Your task to perform on an android device: turn off data saver in the chrome app Image 0: 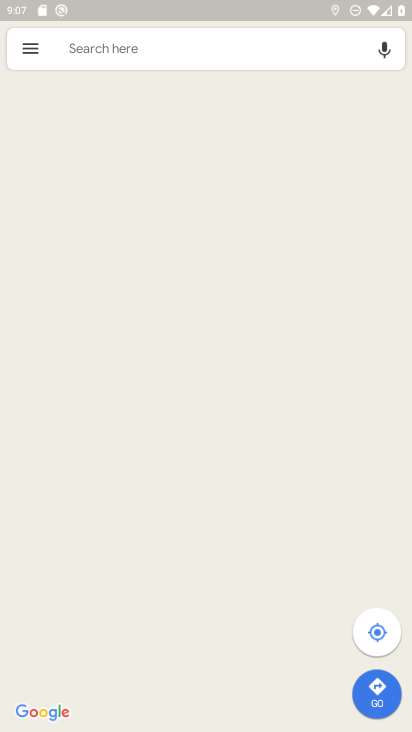
Step 0: press home button
Your task to perform on an android device: turn off data saver in the chrome app Image 1: 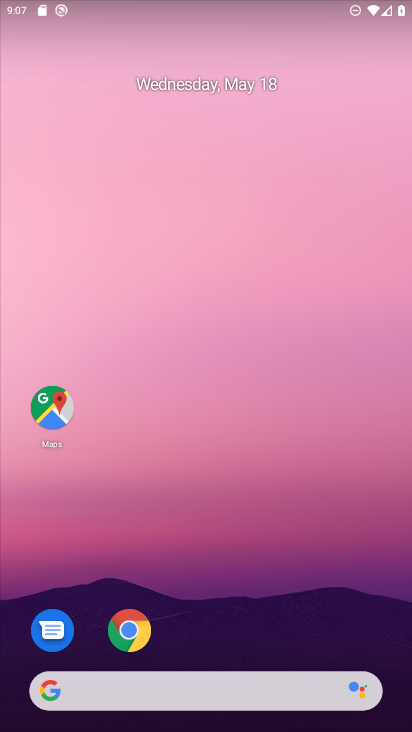
Step 1: drag from (226, 659) to (193, 113)
Your task to perform on an android device: turn off data saver in the chrome app Image 2: 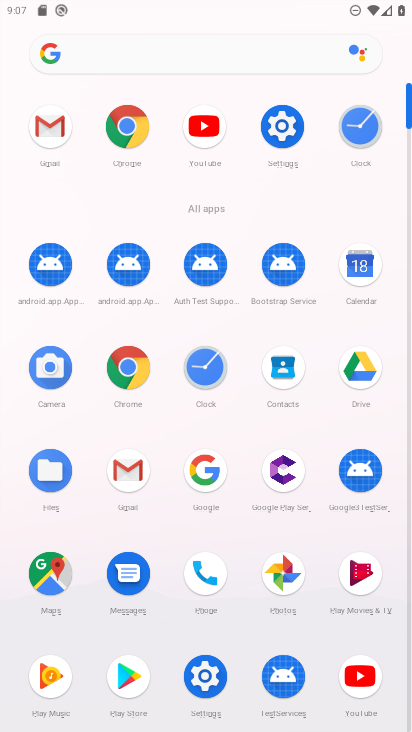
Step 2: click (101, 128)
Your task to perform on an android device: turn off data saver in the chrome app Image 3: 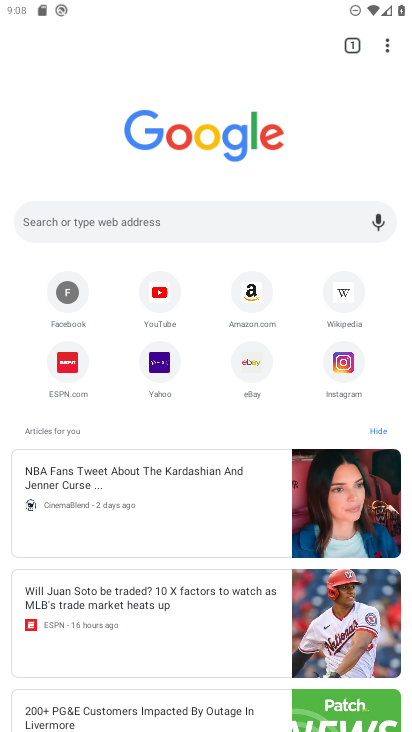
Step 3: click (386, 56)
Your task to perform on an android device: turn off data saver in the chrome app Image 4: 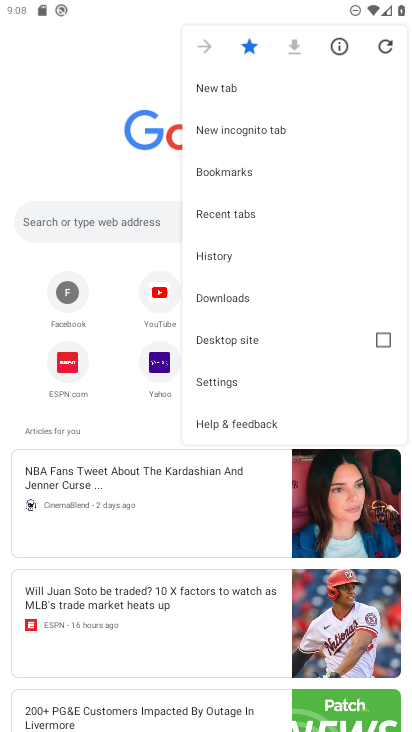
Step 4: click (216, 371)
Your task to perform on an android device: turn off data saver in the chrome app Image 5: 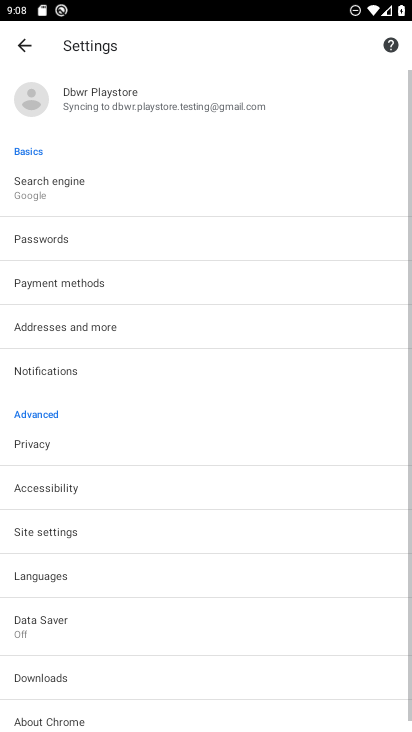
Step 5: drag from (256, 620) to (245, 289)
Your task to perform on an android device: turn off data saver in the chrome app Image 6: 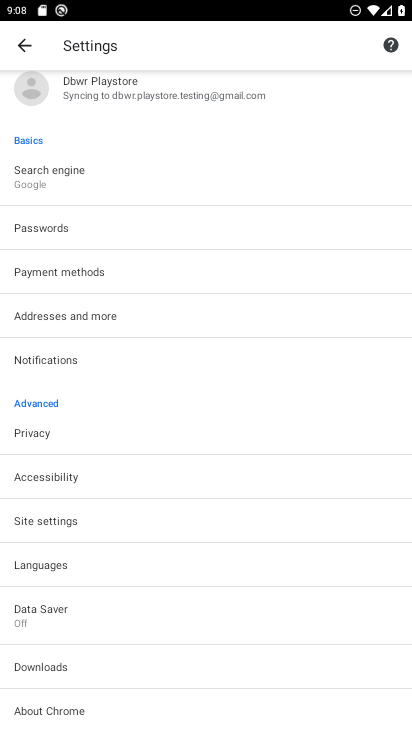
Step 6: click (50, 602)
Your task to perform on an android device: turn off data saver in the chrome app Image 7: 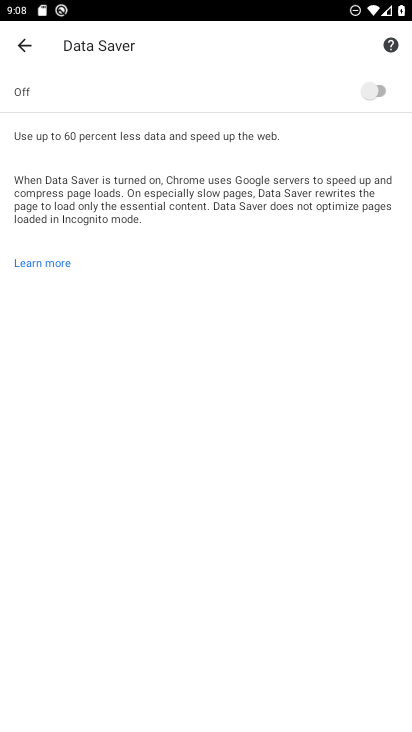
Step 7: task complete